Your task to perform on an android device: manage bookmarks in the chrome app Image 0: 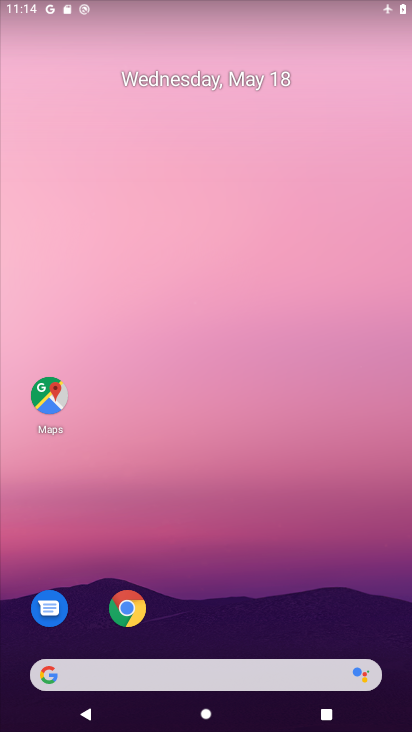
Step 0: click (134, 609)
Your task to perform on an android device: manage bookmarks in the chrome app Image 1: 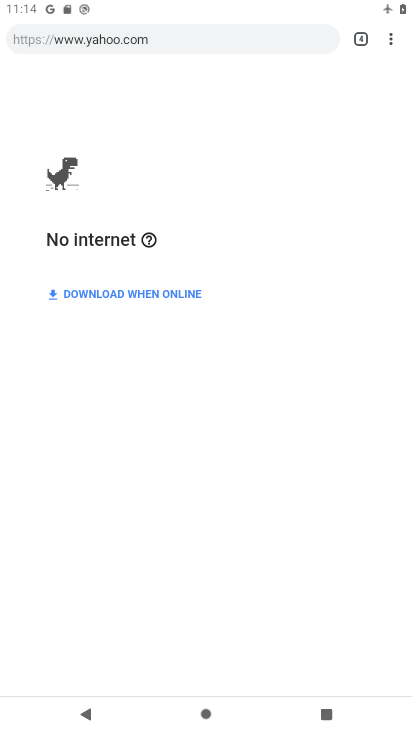
Step 1: click (393, 39)
Your task to perform on an android device: manage bookmarks in the chrome app Image 2: 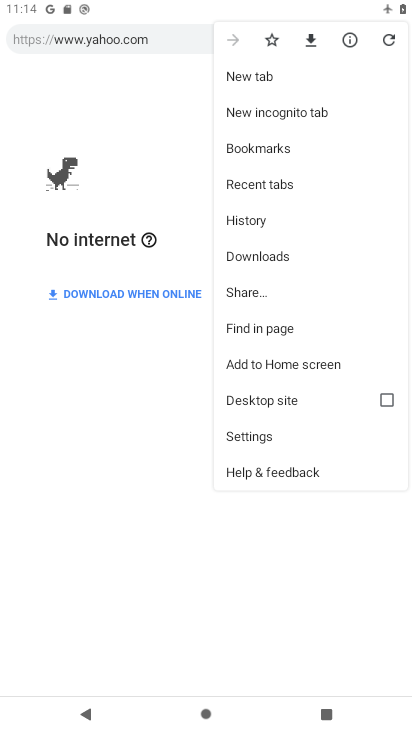
Step 2: click (263, 144)
Your task to perform on an android device: manage bookmarks in the chrome app Image 3: 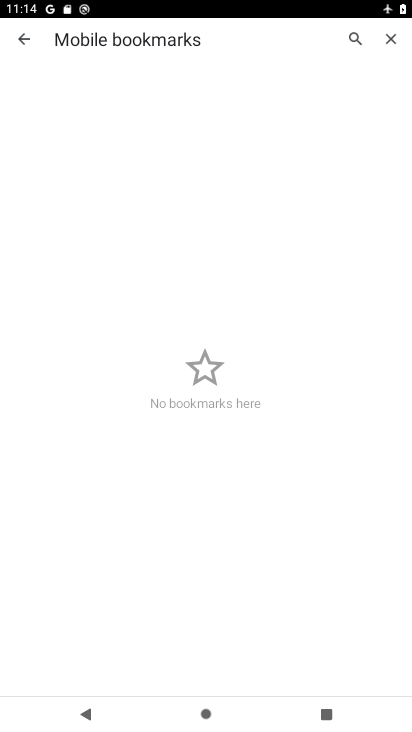
Step 3: task complete